Your task to perform on an android device: all mails in gmail Image 0: 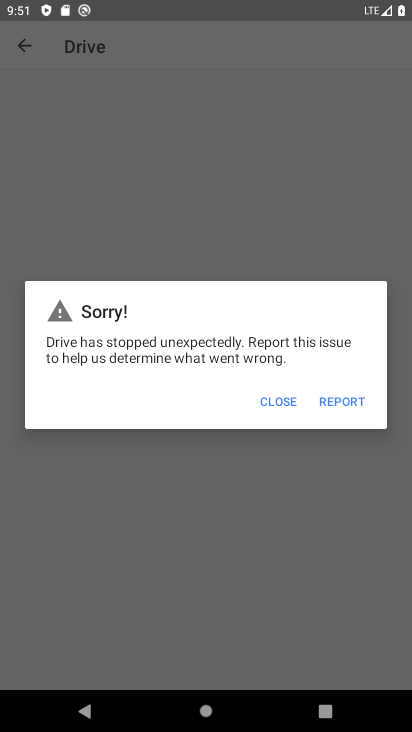
Step 0: click (369, 713)
Your task to perform on an android device: all mails in gmail Image 1: 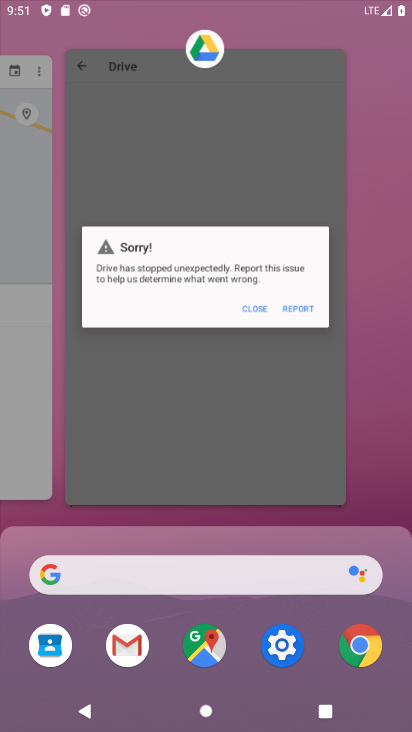
Step 1: press home button
Your task to perform on an android device: all mails in gmail Image 2: 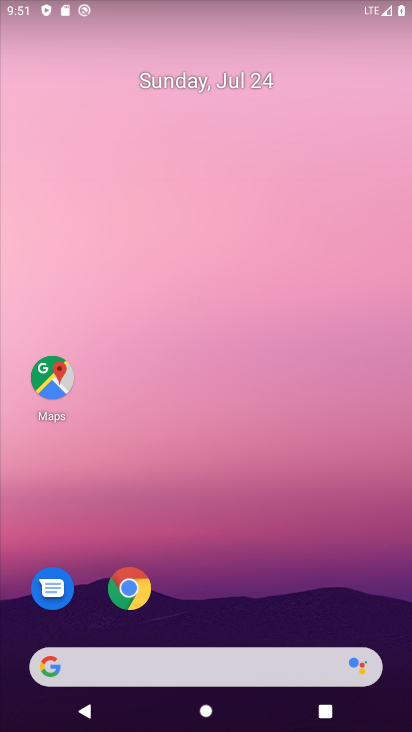
Step 2: drag from (279, 720) to (284, 7)
Your task to perform on an android device: all mails in gmail Image 3: 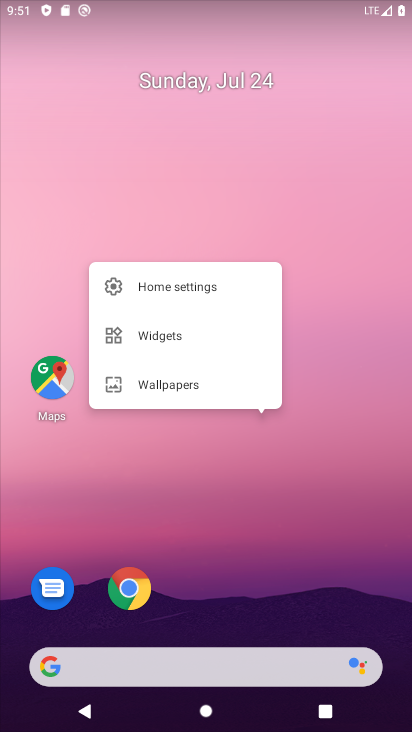
Step 3: drag from (282, 700) to (350, 3)
Your task to perform on an android device: all mails in gmail Image 4: 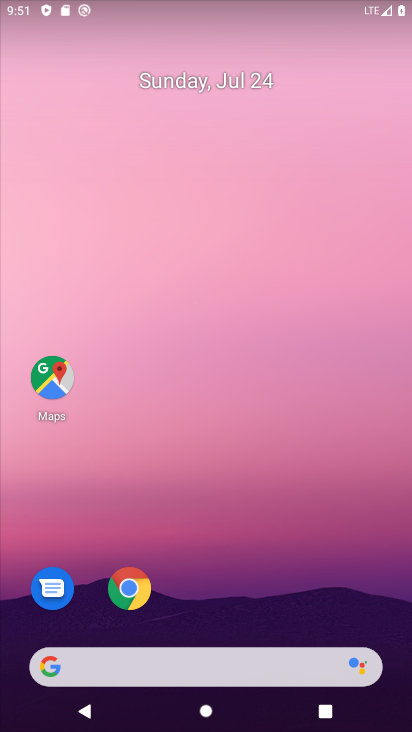
Step 4: drag from (285, 700) to (177, 116)
Your task to perform on an android device: all mails in gmail Image 5: 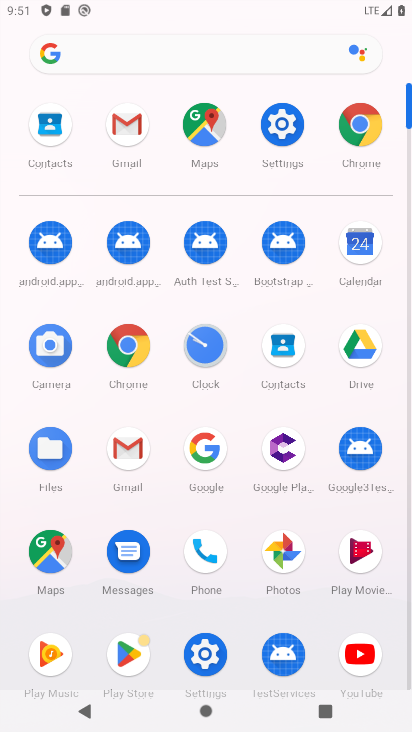
Step 5: click (114, 123)
Your task to perform on an android device: all mails in gmail Image 6: 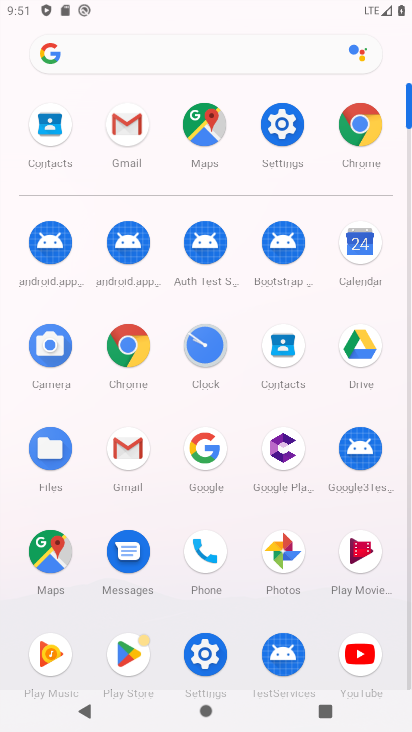
Step 6: click (114, 123)
Your task to perform on an android device: all mails in gmail Image 7: 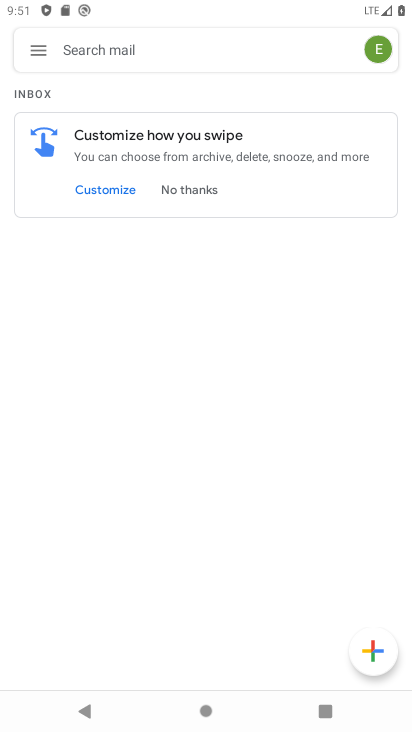
Step 7: click (36, 44)
Your task to perform on an android device: all mails in gmail Image 8: 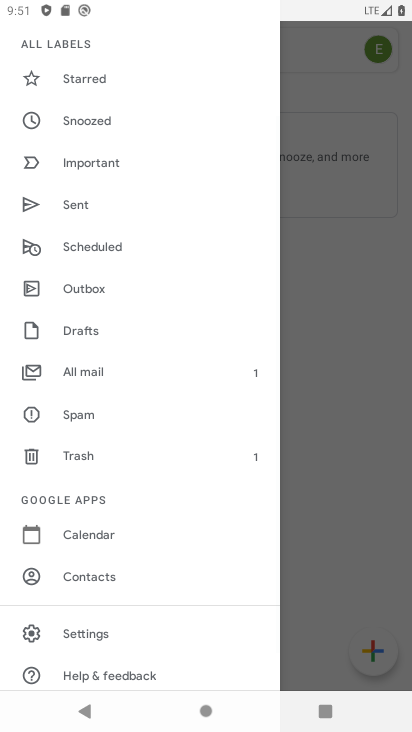
Step 8: click (88, 372)
Your task to perform on an android device: all mails in gmail Image 9: 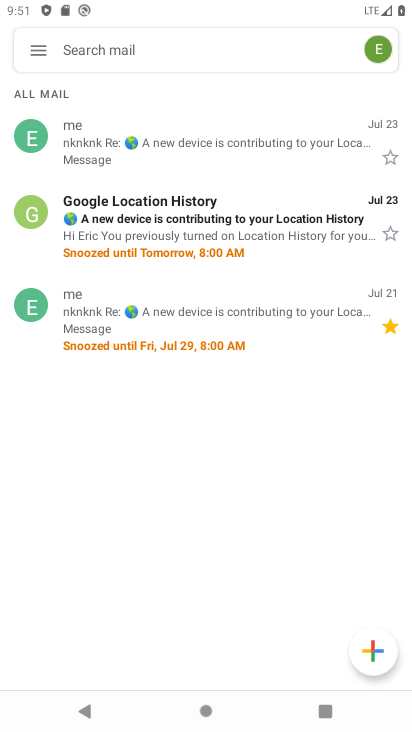
Step 9: task complete